Your task to perform on an android device: remove spam from my inbox in the gmail app Image 0: 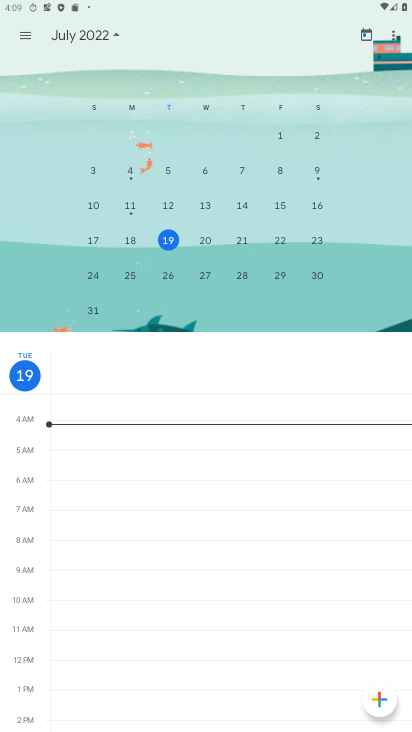
Step 0: press home button
Your task to perform on an android device: remove spam from my inbox in the gmail app Image 1: 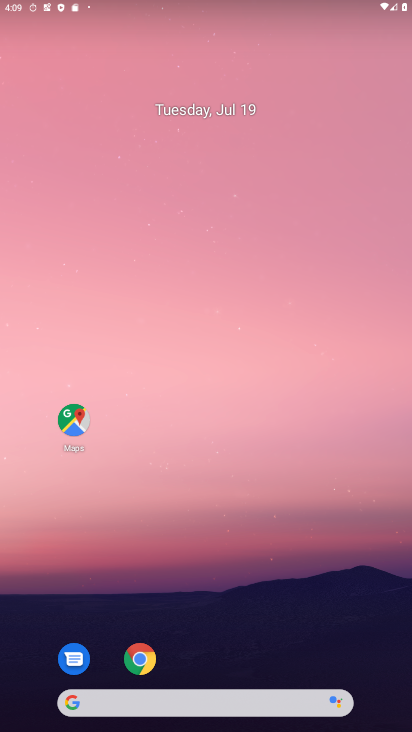
Step 1: drag from (309, 650) to (356, 4)
Your task to perform on an android device: remove spam from my inbox in the gmail app Image 2: 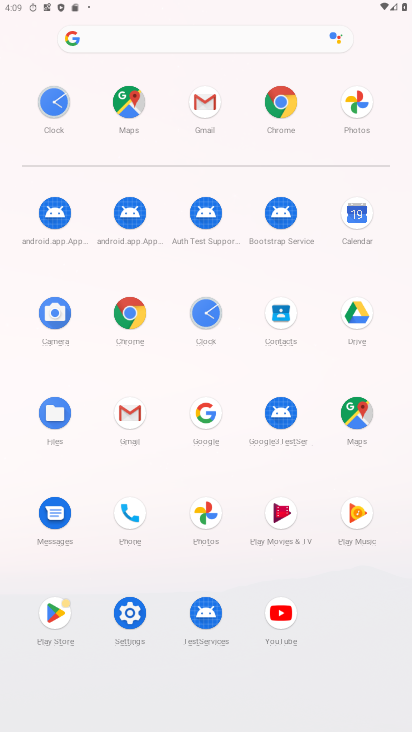
Step 2: click (197, 103)
Your task to perform on an android device: remove spam from my inbox in the gmail app Image 3: 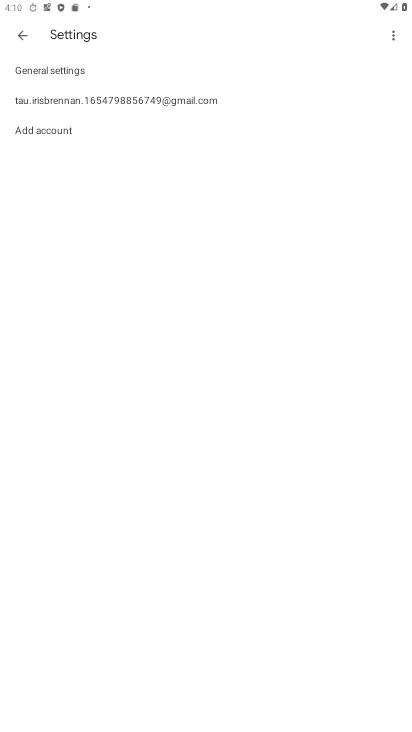
Step 3: click (11, 31)
Your task to perform on an android device: remove spam from my inbox in the gmail app Image 4: 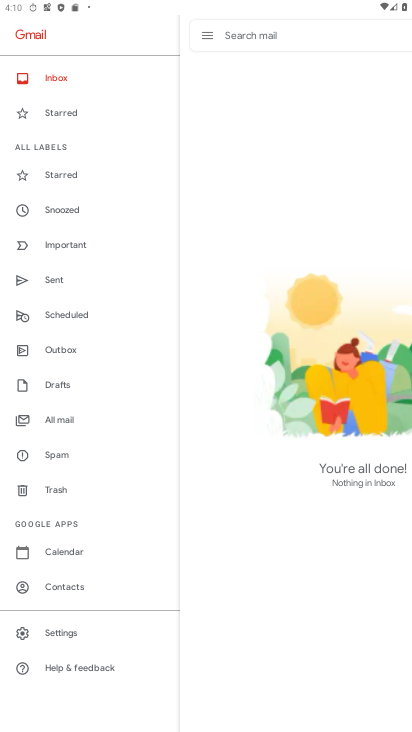
Step 4: drag from (64, 600) to (66, 287)
Your task to perform on an android device: remove spam from my inbox in the gmail app Image 5: 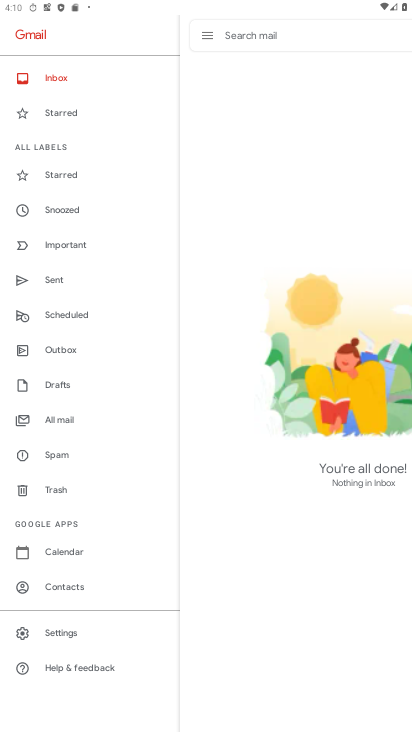
Step 5: click (54, 450)
Your task to perform on an android device: remove spam from my inbox in the gmail app Image 6: 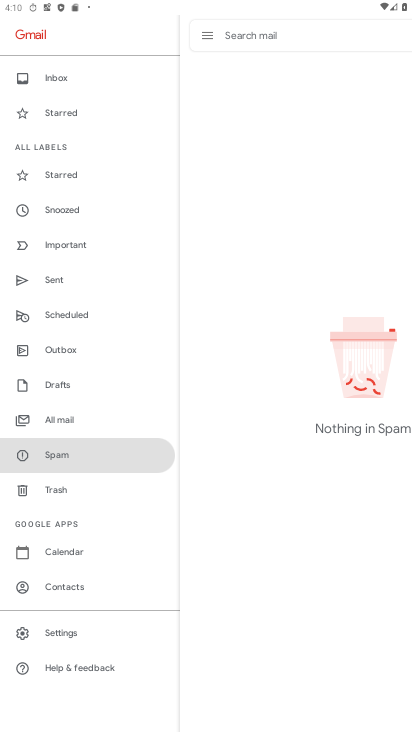
Step 6: task complete